Your task to perform on an android device: Check the news Image 0: 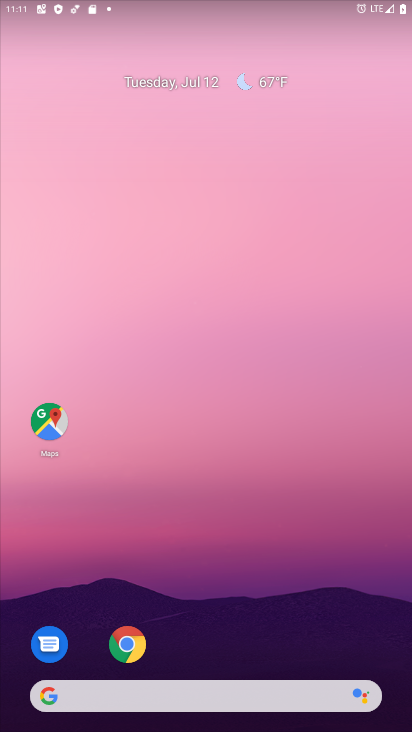
Step 0: click (307, 27)
Your task to perform on an android device: Check the news Image 1: 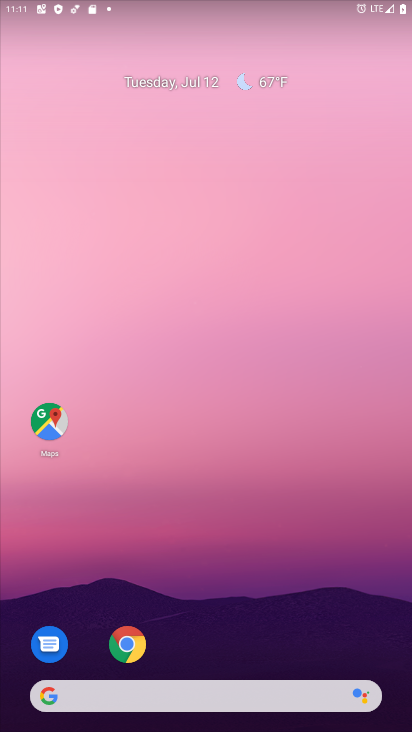
Step 1: drag from (214, 431) to (305, 62)
Your task to perform on an android device: Check the news Image 2: 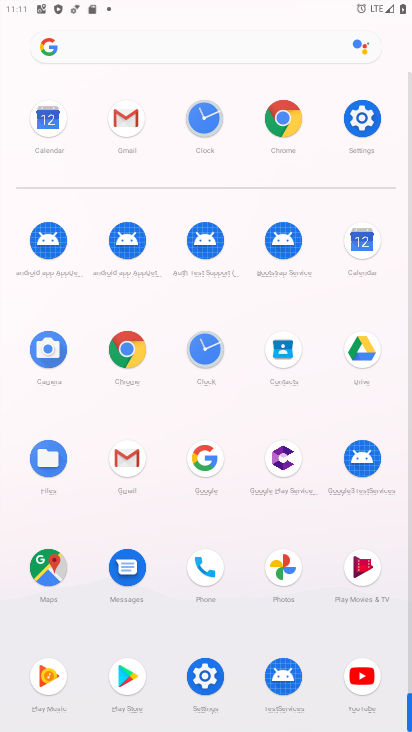
Step 2: click (144, 39)
Your task to perform on an android device: Check the news Image 3: 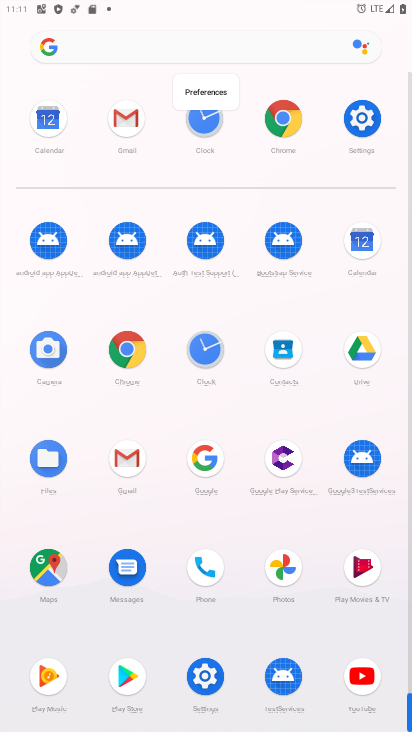
Step 3: click (150, 48)
Your task to perform on an android device: Check the news Image 4: 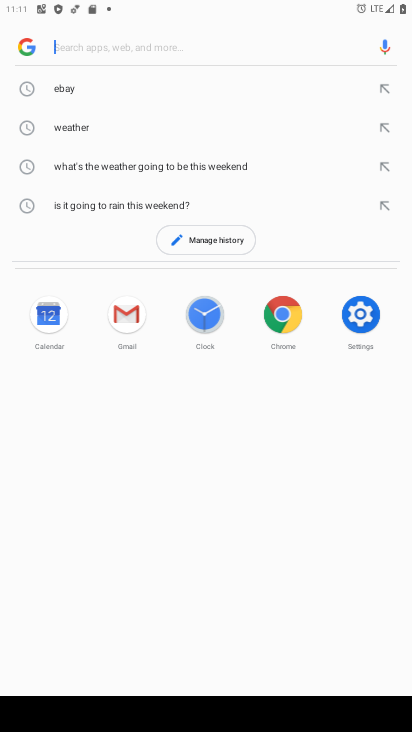
Step 4: type "news"
Your task to perform on an android device: Check the news Image 5: 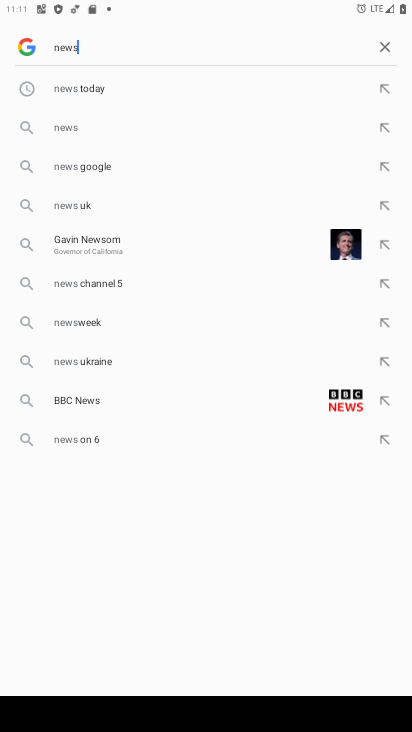
Step 5: click (69, 137)
Your task to perform on an android device: Check the news Image 6: 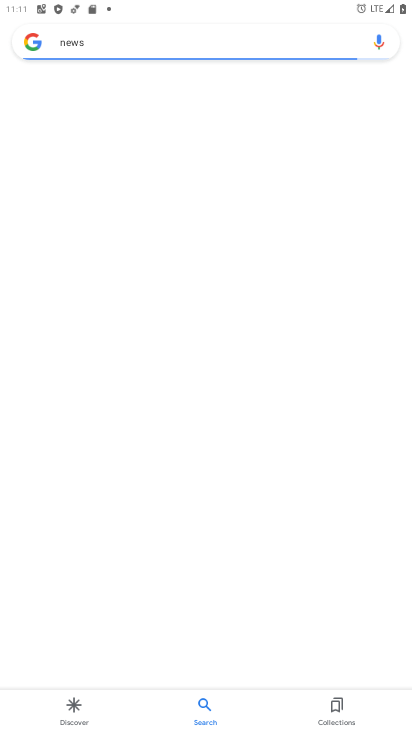
Step 6: task complete